Your task to perform on an android device: Search for vegetarian restaurants on Maps Image 0: 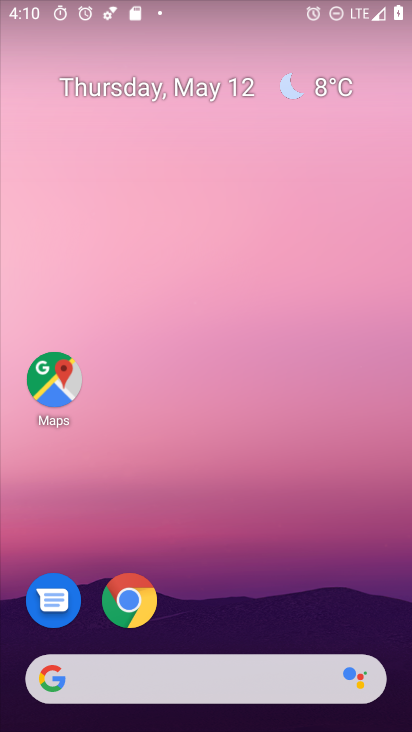
Step 0: drag from (208, 728) to (197, 176)
Your task to perform on an android device: Search for vegetarian restaurants on Maps Image 1: 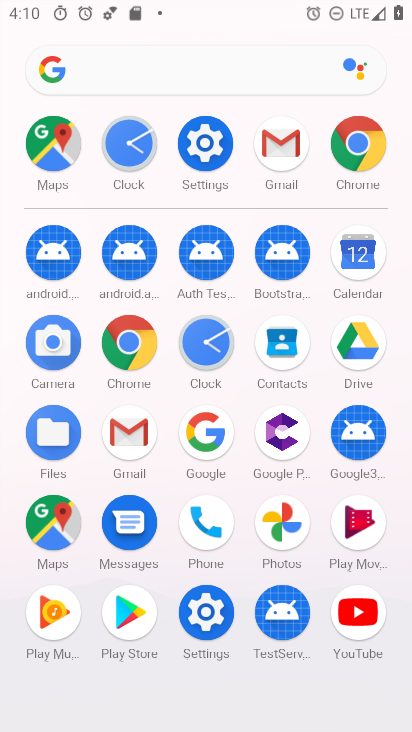
Step 1: click (43, 524)
Your task to perform on an android device: Search for vegetarian restaurants on Maps Image 2: 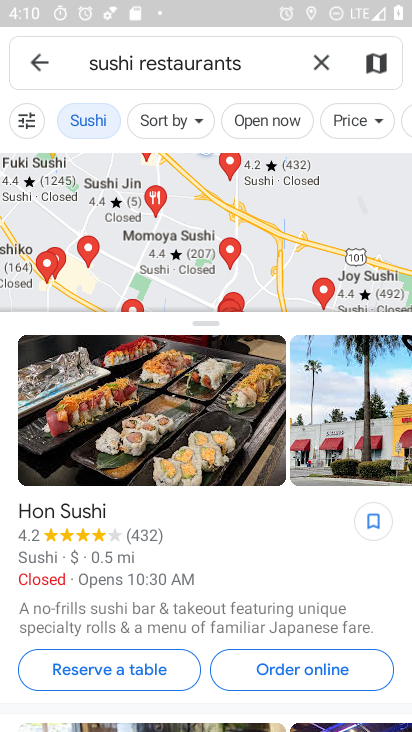
Step 2: click (327, 57)
Your task to perform on an android device: Search for vegetarian restaurants on Maps Image 3: 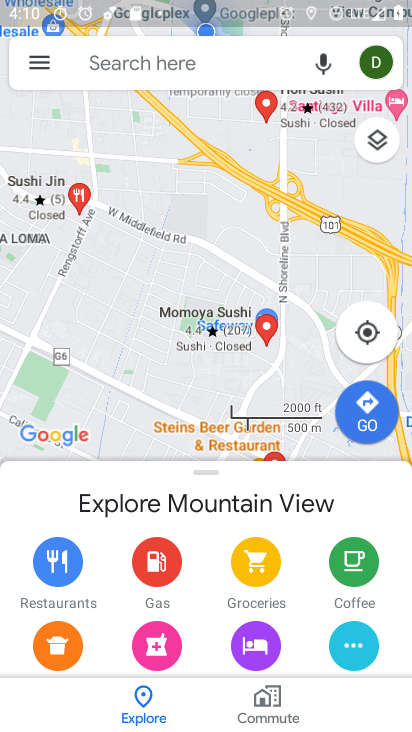
Step 3: click (209, 57)
Your task to perform on an android device: Search for vegetarian restaurants on Maps Image 4: 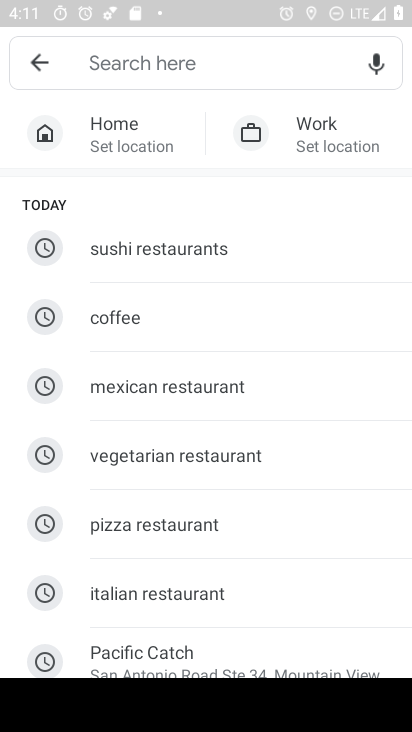
Step 4: type "vegetarian restaurants"
Your task to perform on an android device: Search for vegetarian restaurants on Maps Image 5: 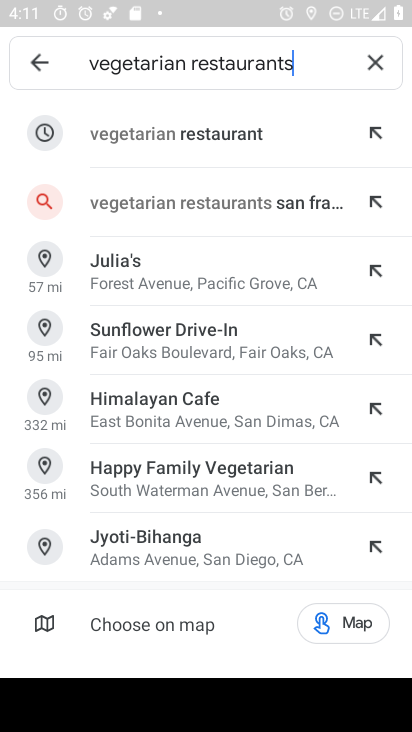
Step 5: click (195, 135)
Your task to perform on an android device: Search for vegetarian restaurants on Maps Image 6: 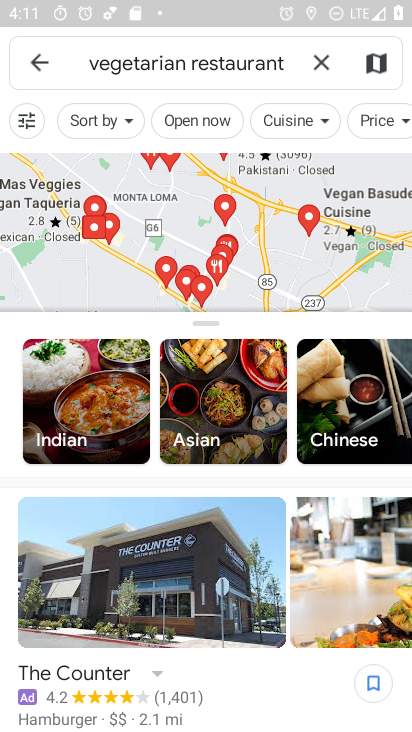
Step 6: task complete